Your task to perform on an android device: open app "Instagram" (install if not already installed) and go to login screen Image 0: 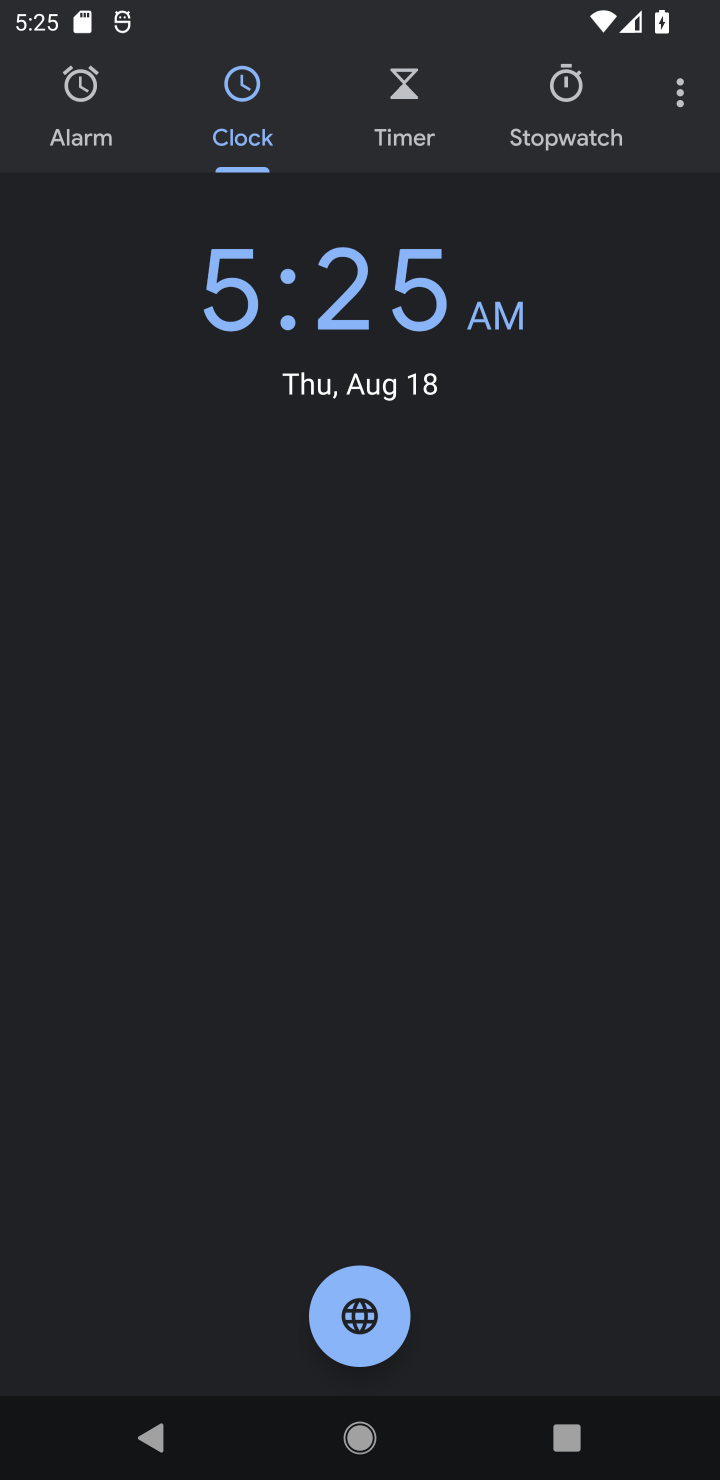
Step 0: press home button
Your task to perform on an android device: open app "Instagram" (install if not already installed) and go to login screen Image 1: 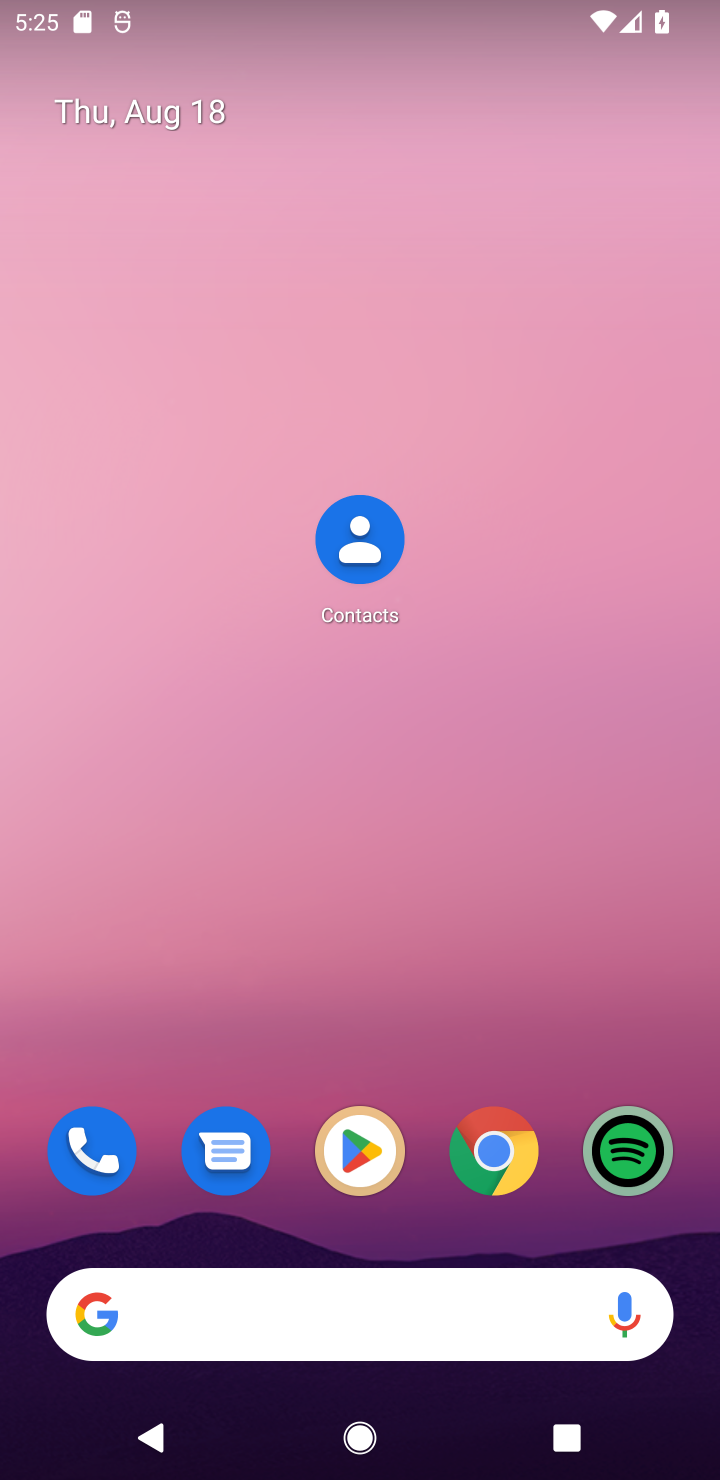
Step 1: click (349, 1166)
Your task to perform on an android device: open app "Instagram" (install if not already installed) and go to login screen Image 2: 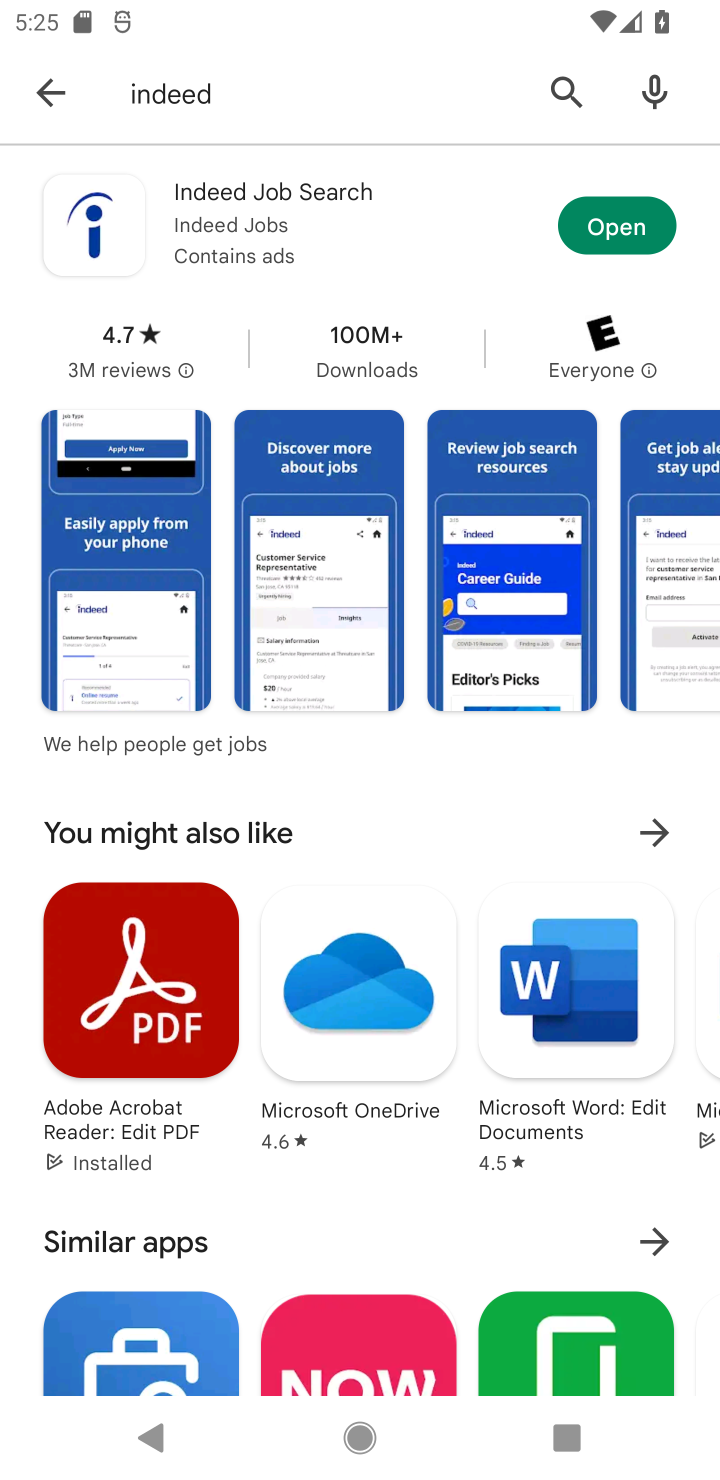
Step 2: click (580, 98)
Your task to perform on an android device: open app "Instagram" (install if not already installed) and go to login screen Image 3: 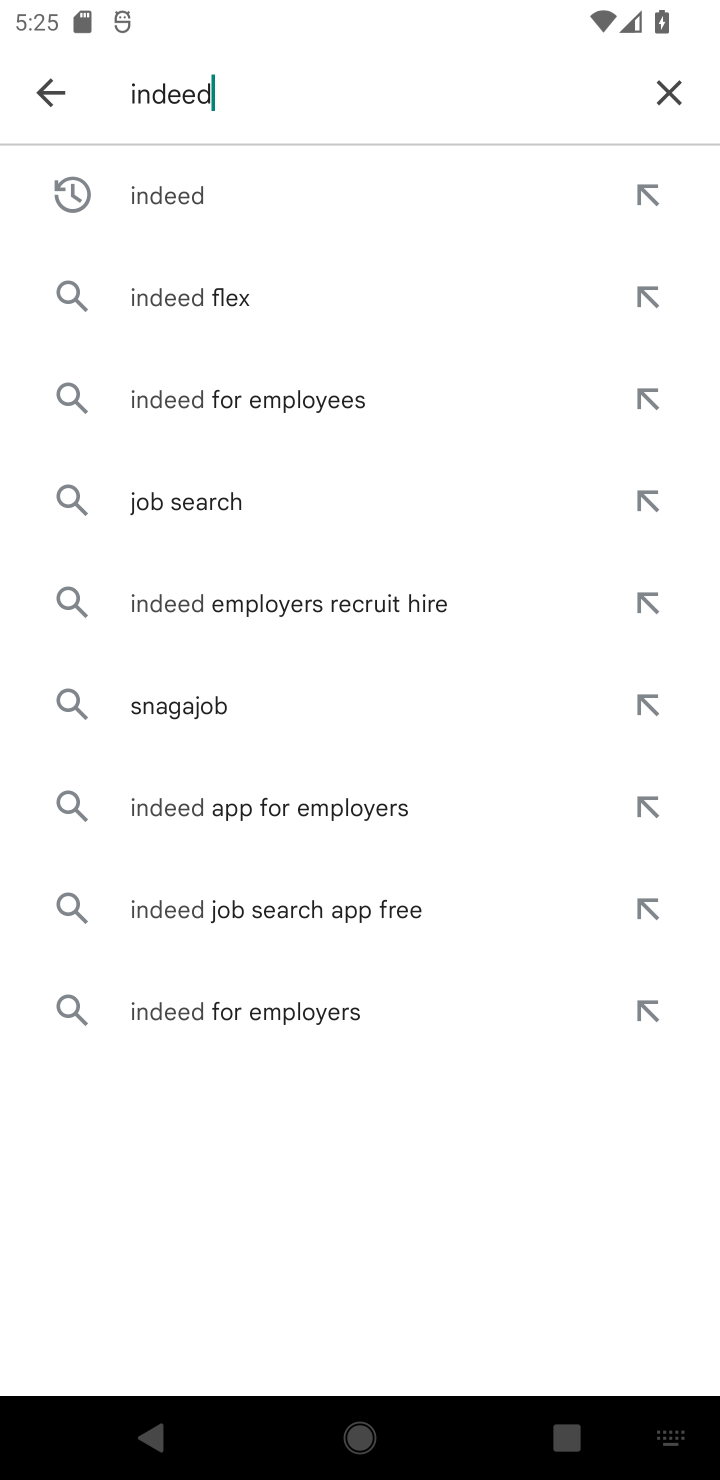
Step 3: click (646, 96)
Your task to perform on an android device: open app "Instagram" (install if not already installed) and go to login screen Image 4: 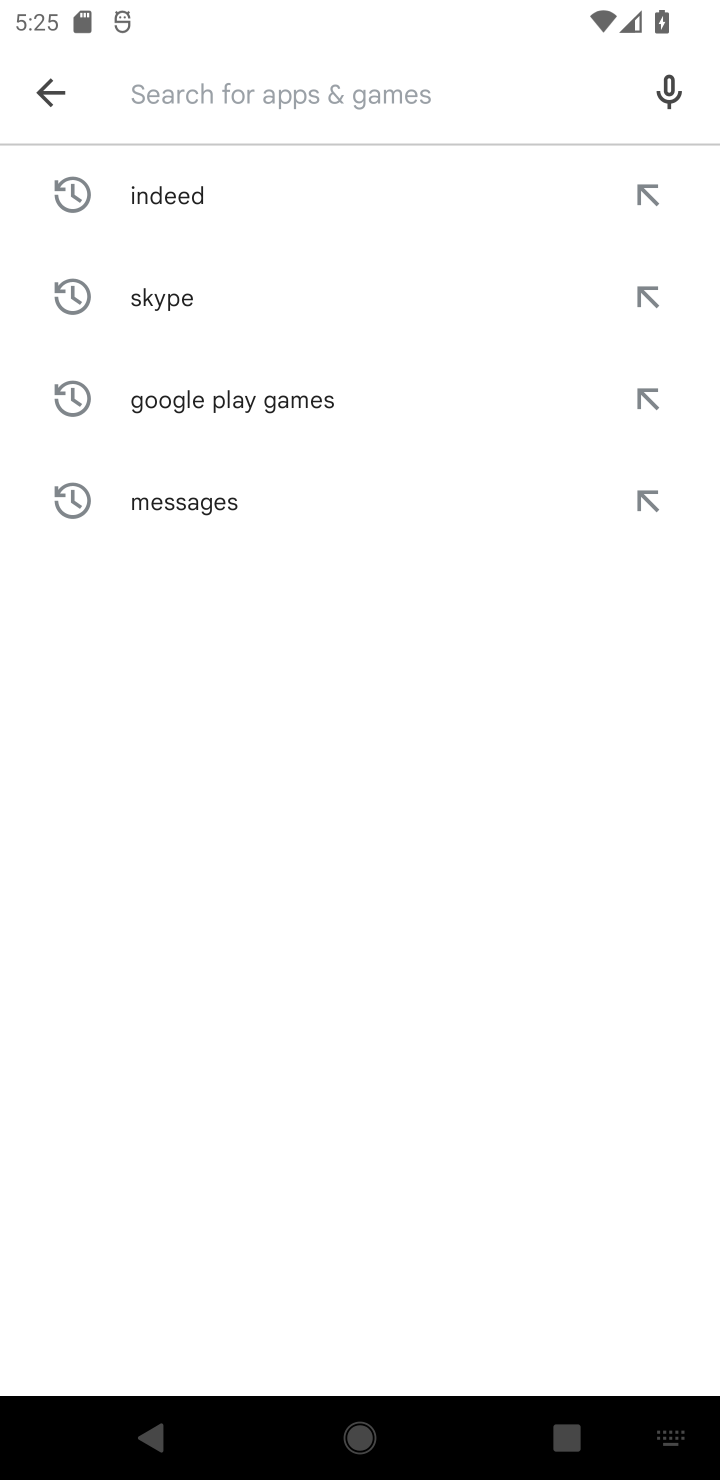
Step 4: type "instagram"
Your task to perform on an android device: open app "Instagram" (install if not already installed) and go to login screen Image 5: 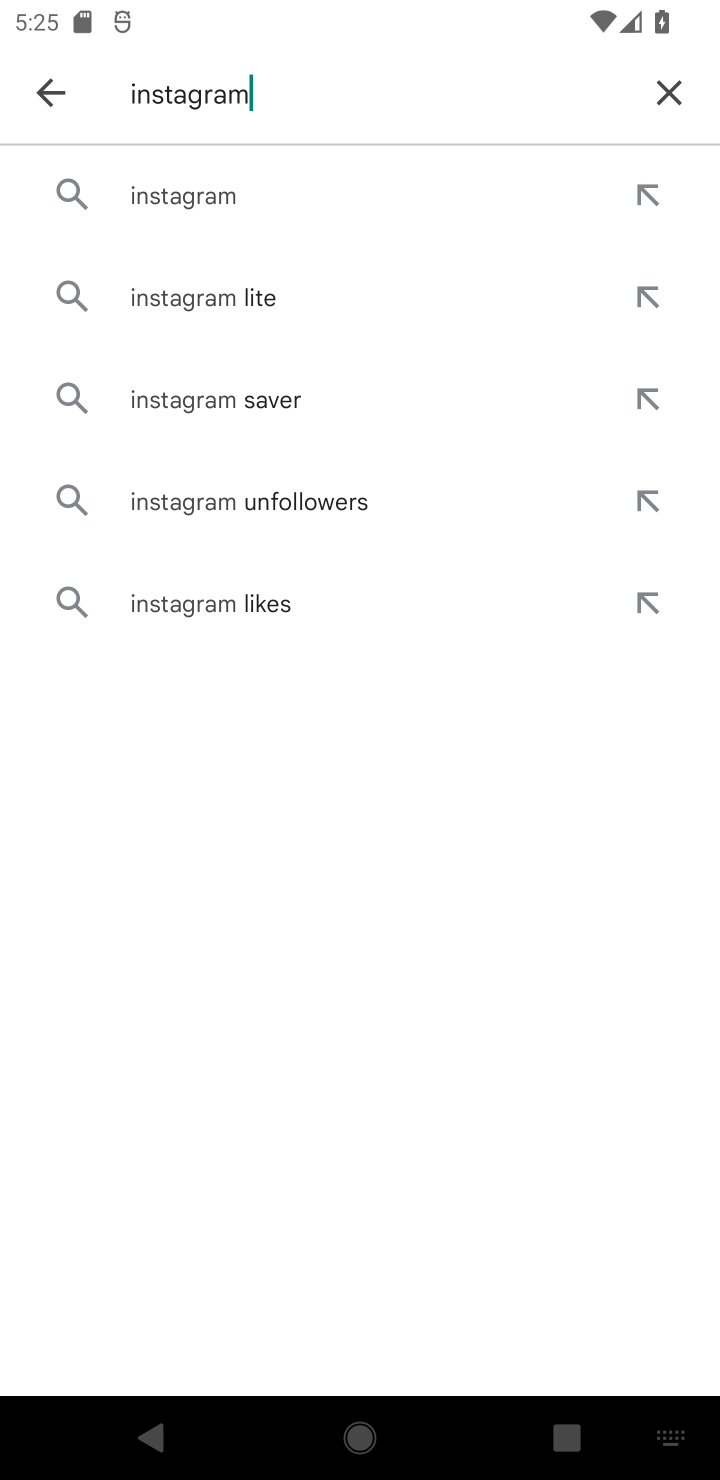
Step 5: click (229, 226)
Your task to perform on an android device: open app "Instagram" (install if not already installed) and go to login screen Image 6: 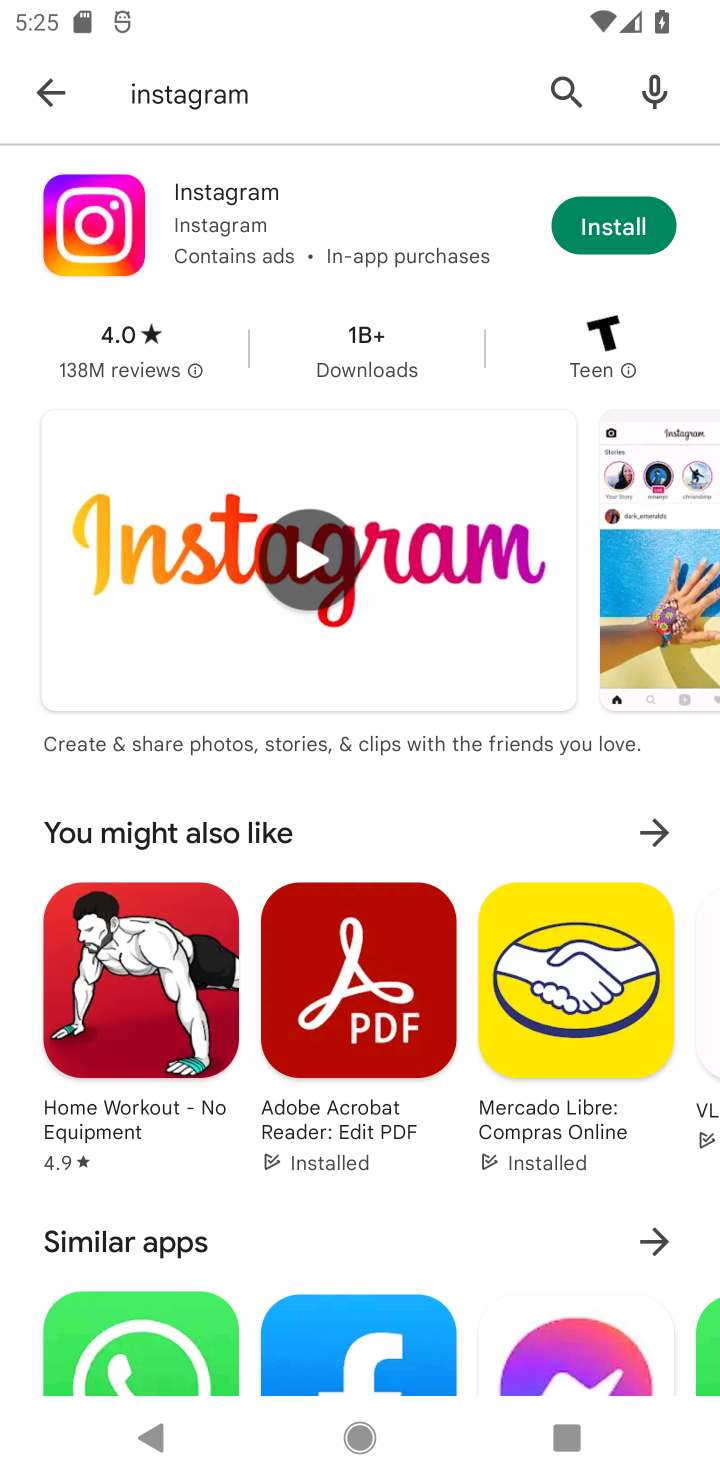
Step 6: click (606, 222)
Your task to perform on an android device: open app "Instagram" (install if not already installed) and go to login screen Image 7: 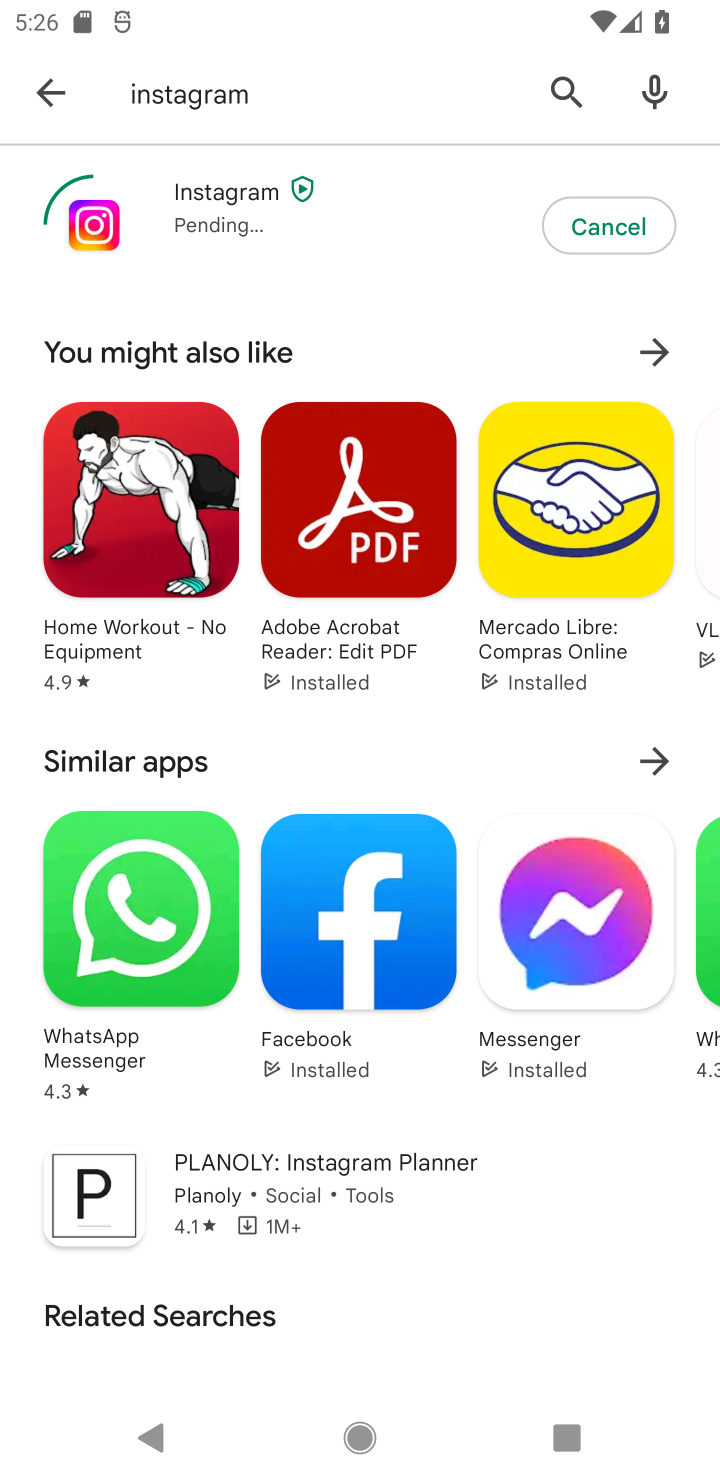
Step 7: task complete